Your task to perform on an android device: Go to Maps Image 0: 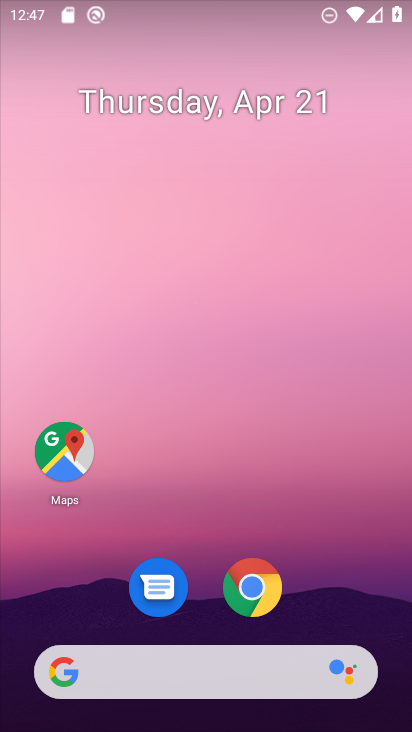
Step 0: click (63, 461)
Your task to perform on an android device: Go to Maps Image 1: 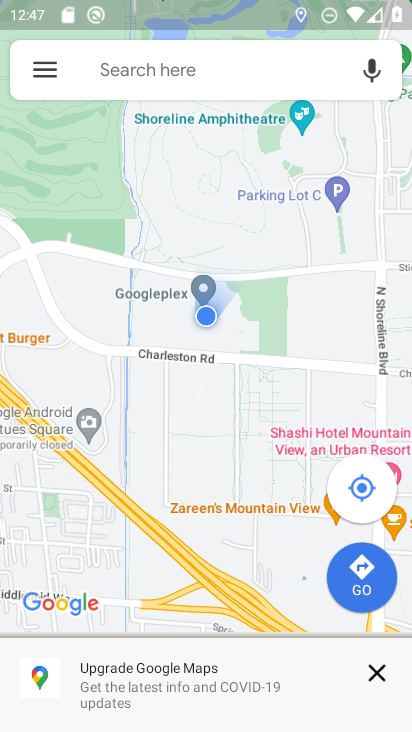
Step 1: task complete